Your task to perform on an android device: open app "Life360: Find Family & Friends" (install if not already installed), go to login, and select forgot password Image 0: 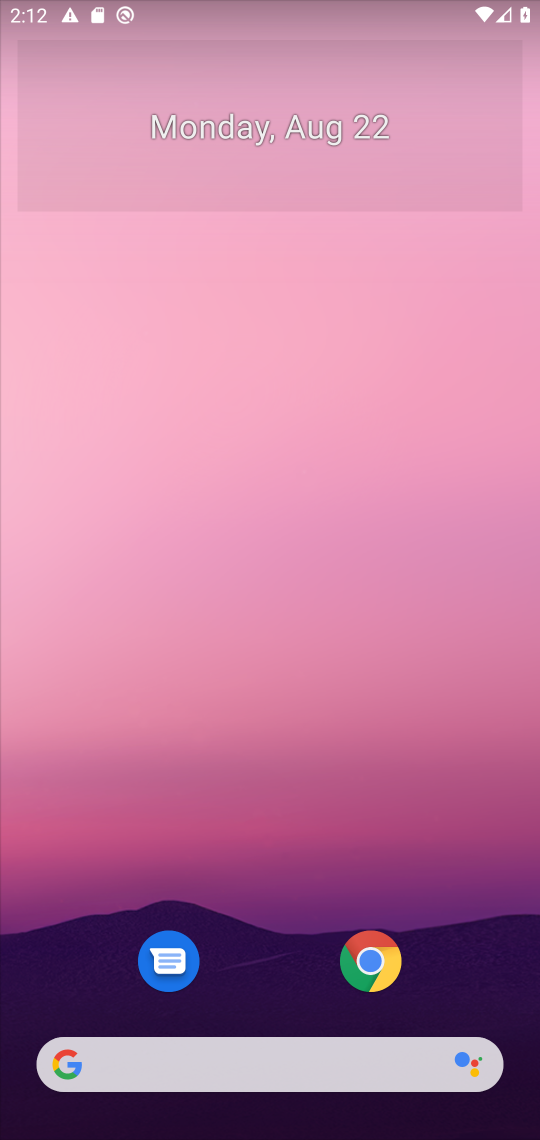
Step 0: press home button
Your task to perform on an android device: open app "Life360: Find Family & Friends" (install if not already installed), go to login, and select forgot password Image 1: 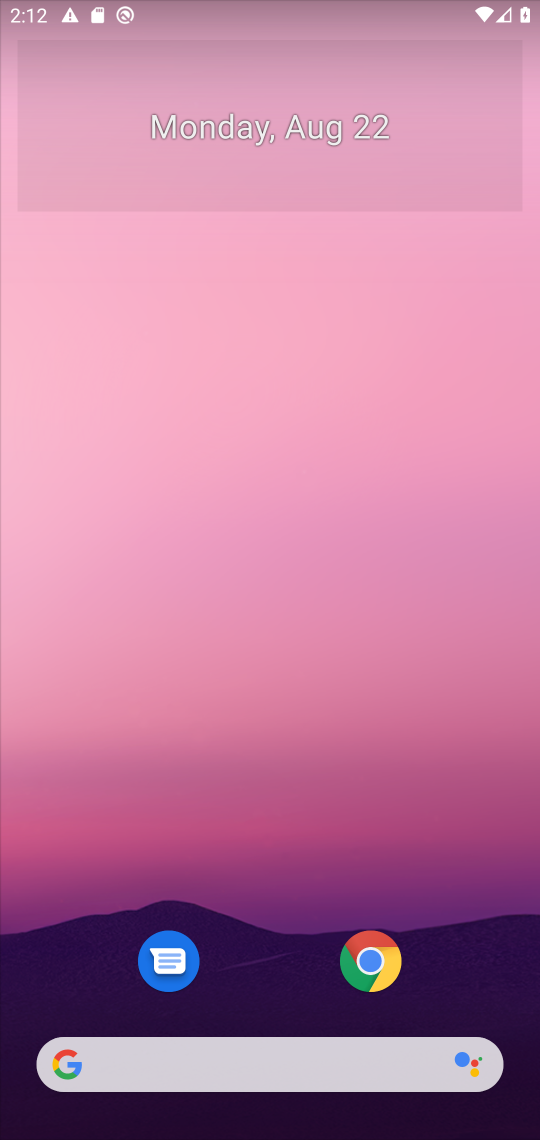
Step 1: drag from (460, 996) to (434, 151)
Your task to perform on an android device: open app "Life360: Find Family & Friends" (install if not already installed), go to login, and select forgot password Image 2: 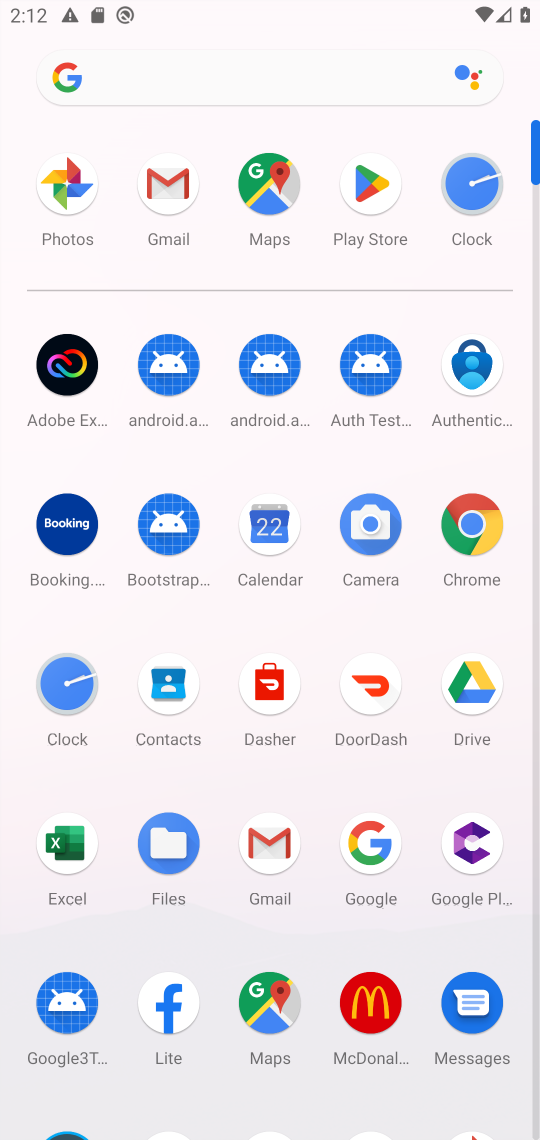
Step 2: click (374, 179)
Your task to perform on an android device: open app "Life360: Find Family & Friends" (install if not already installed), go to login, and select forgot password Image 3: 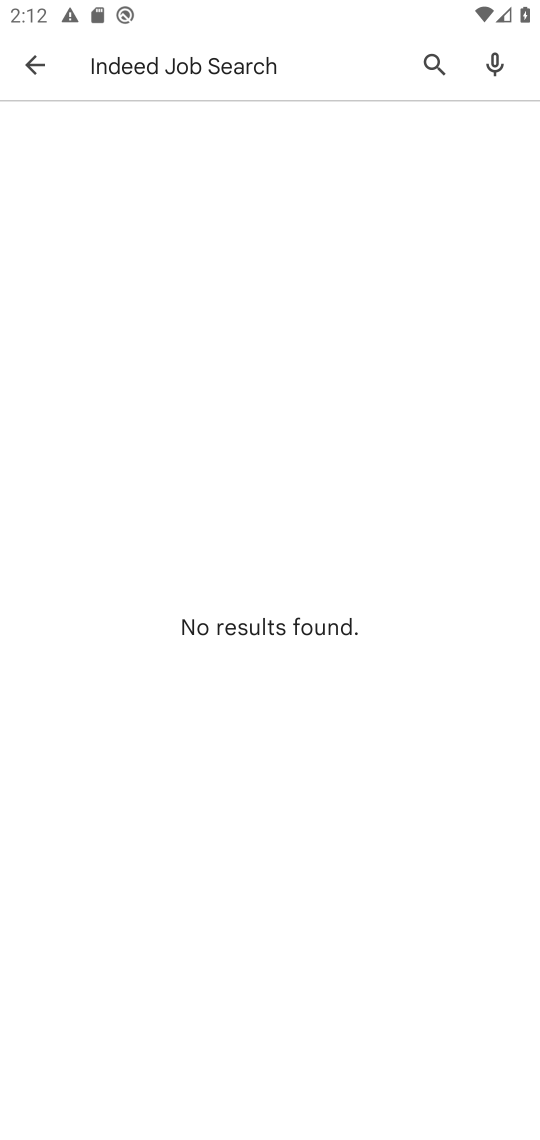
Step 3: press back button
Your task to perform on an android device: open app "Life360: Find Family & Friends" (install if not already installed), go to login, and select forgot password Image 4: 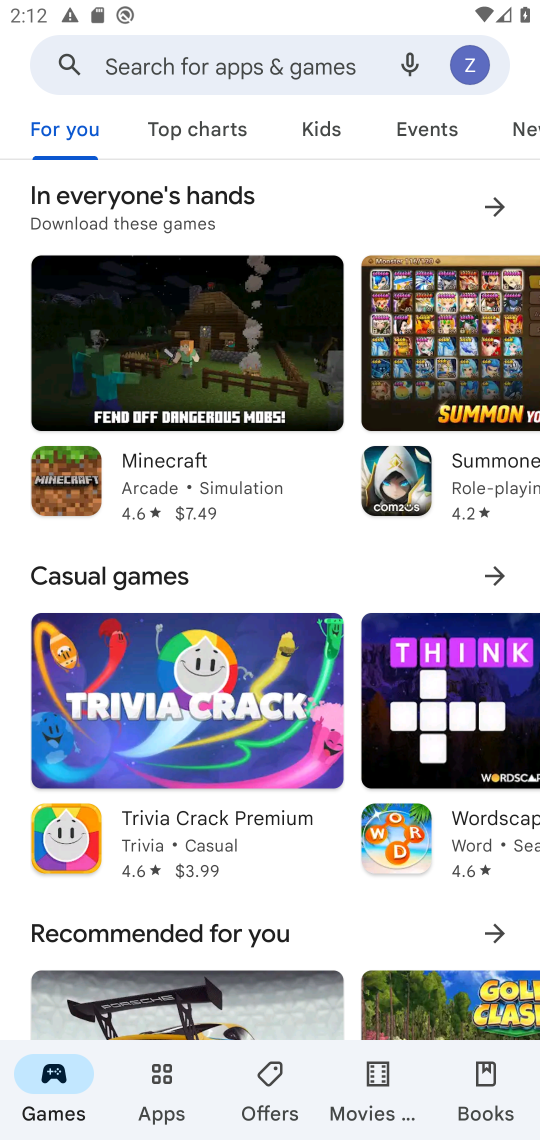
Step 4: click (308, 65)
Your task to perform on an android device: open app "Life360: Find Family & Friends" (install if not already installed), go to login, and select forgot password Image 5: 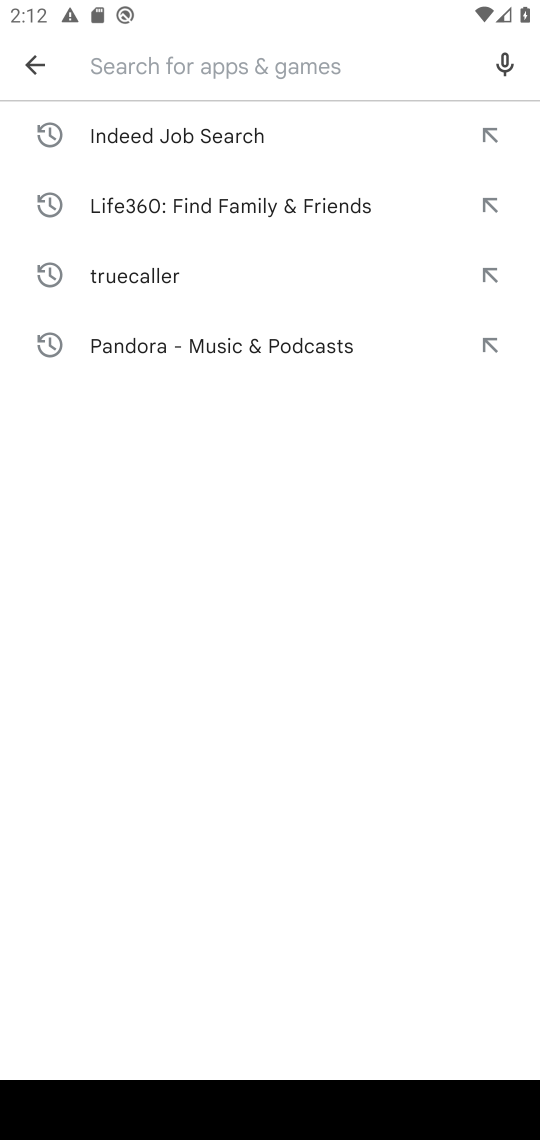
Step 5: type "Life360: Find Family & Friends"
Your task to perform on an android device: open app "Life360: Find Family & Friends" (install if not already installed), go to login, and select forgot password Image 6: 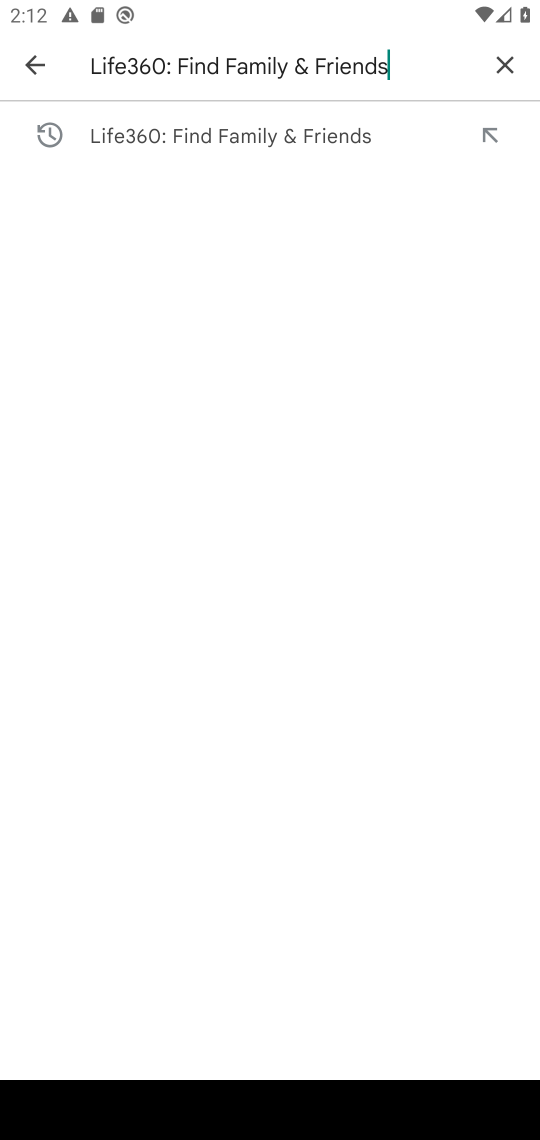
Step 6: press enter
Your task to perform on an android device: open app "Life360: Find Family & Friends" (install if not already installed), go to login, and select forgot password Image 7: 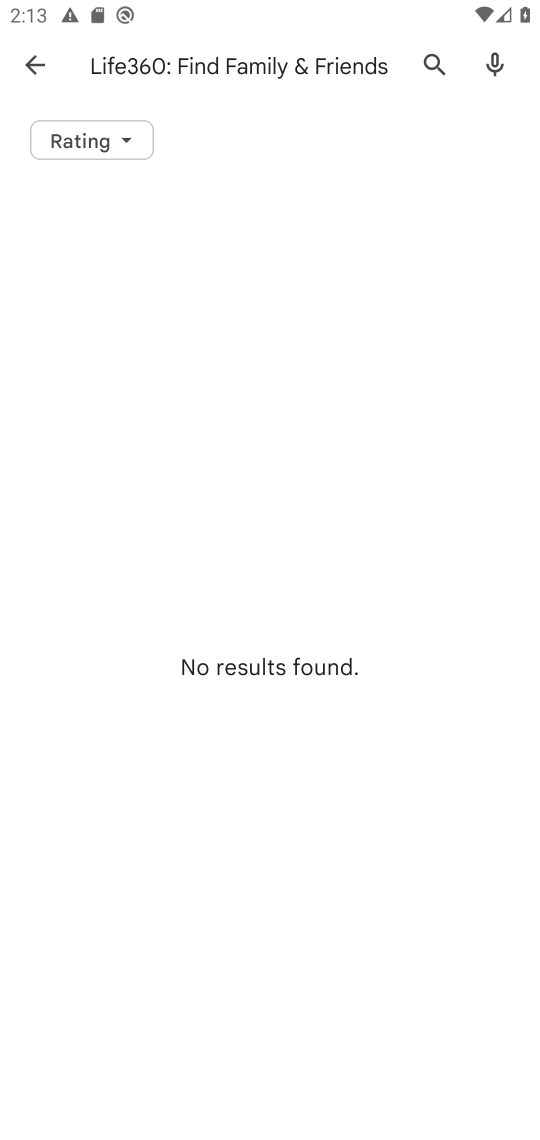
Step 7: task complete